Your task to perform on an android device: toggle data saver in the chrome app Image 0: 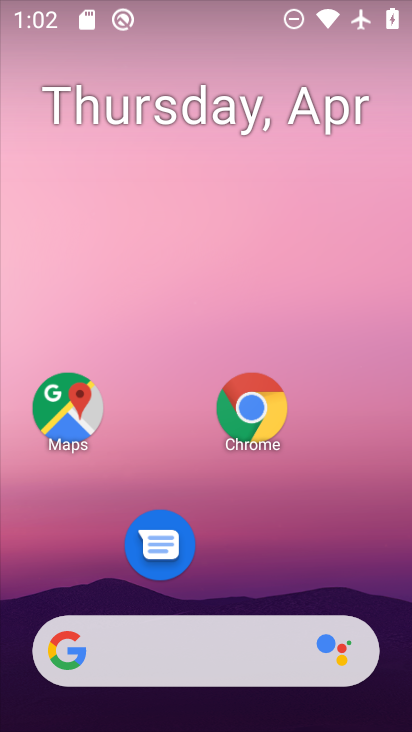
Step 0: drag from (343, 542) to (356, 108)
Your task to perform on an android device: toggle data saver in the chrome app Image 1: 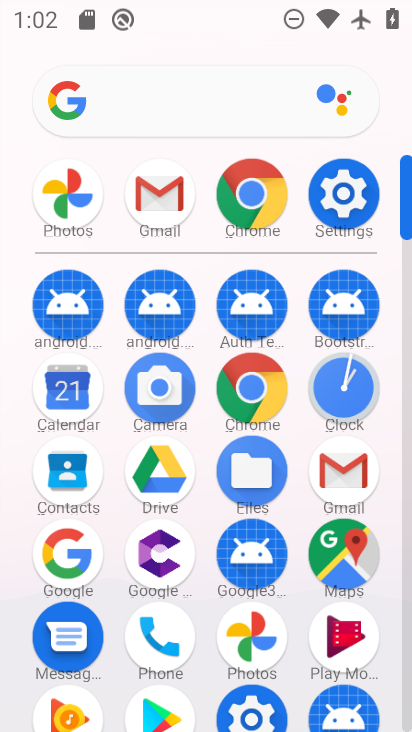
Step 1: click (263, 404)
Your task to perform on an android device: toggle data saver in the chrome app Image 2: 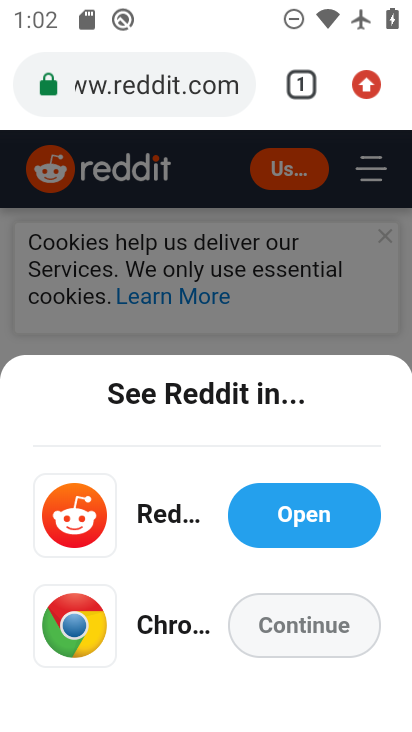
Step 2: drag from (393, 90) to (87, 595)
Your task to perform on an android device: toggle data saver in the chrome app Image 3: 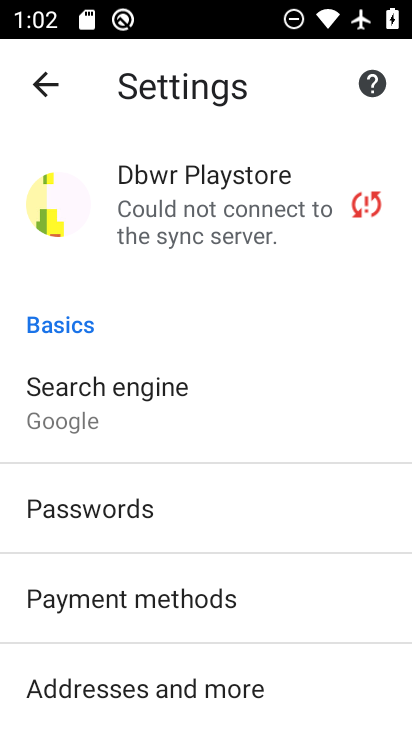
Step 3: drag from (282, 639) to (369, 277)
Your task to perform on an android device: toggle data saver in the chrome app Image 4: 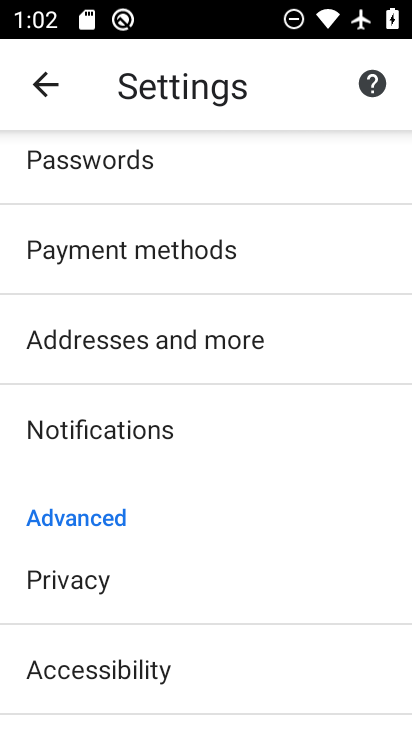
Step 4: drag from (160, 632) to (225, 241)
Your task to perform on an android device: toggle data saver in the chrome app Image 5: 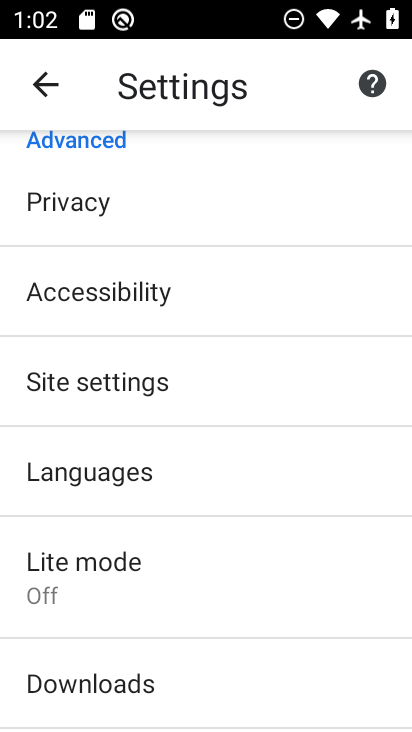
Step 5: click (66, 589)
Your task to perform on an android device: toggle data saver in the chrome app Image 6: 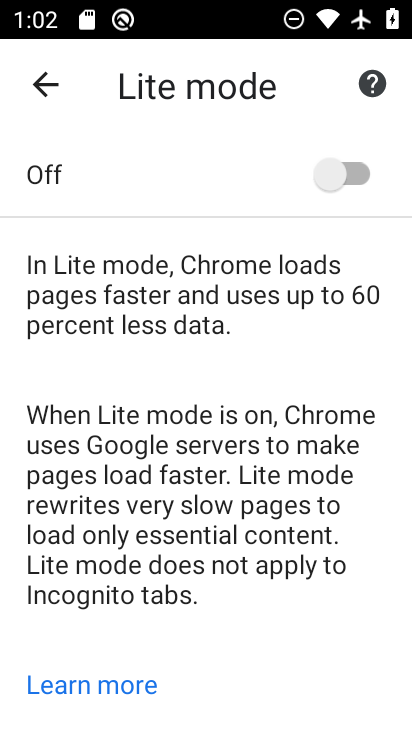
Step 6: click (335, 165)
Your task to perform on an android device: toggle data saver in the chrome app Image 7: 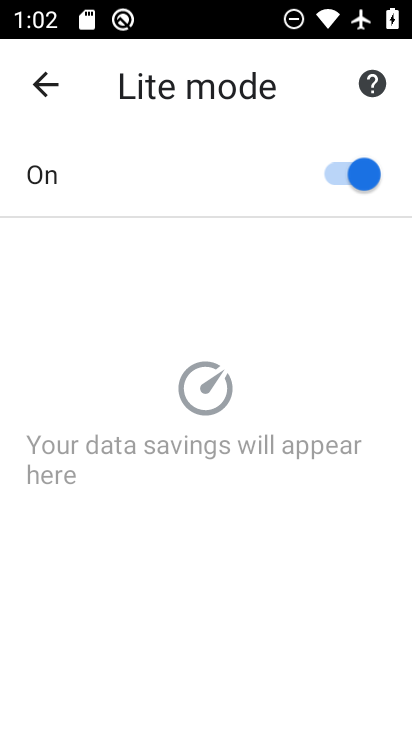
Step 7: task complete